Your task to perform on an android device: Open calendar and show me the second week of next month Image 0: 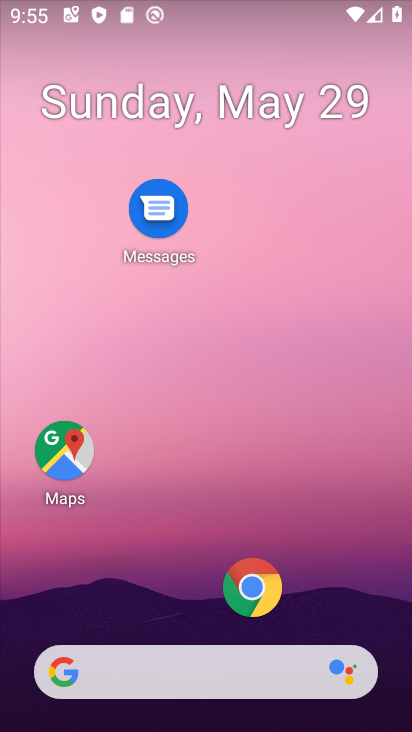
Step 0: drag from (131, 570) to (243, 19)
Your task to perform on an android device: Open calendar and show me the second week of next month Image 1: 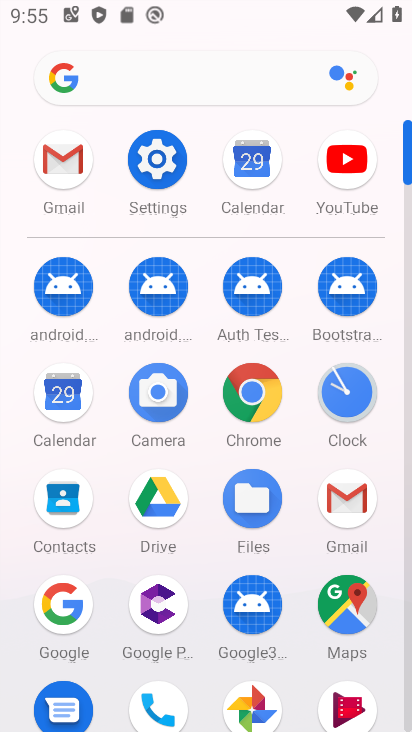
Step 1: click (260, 163)
Your task to perform on an android device: Open calendar and show me the second week of next month Image 2: 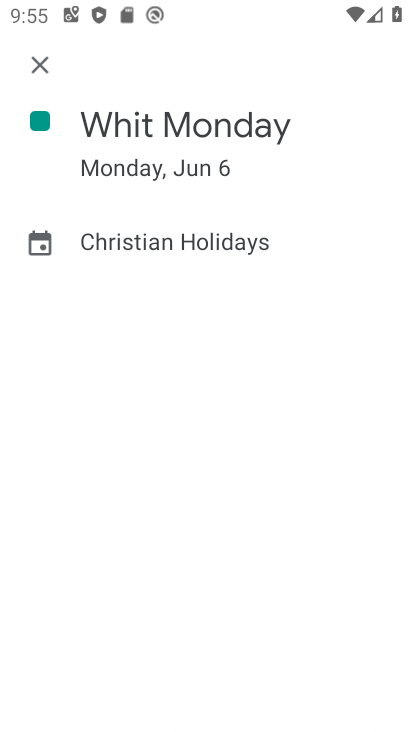
Step 2: press home button
Your task to perform on an android device: Open calendar and show me the second week of next month Image 3: 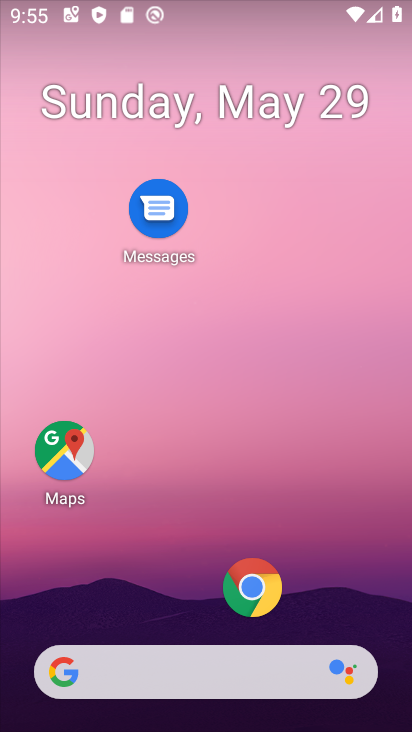
Step 3: drag from (175, 481) to (208, 110)
Your task to perform on an android device: Open calendar and show me the second week of next month Image 4: 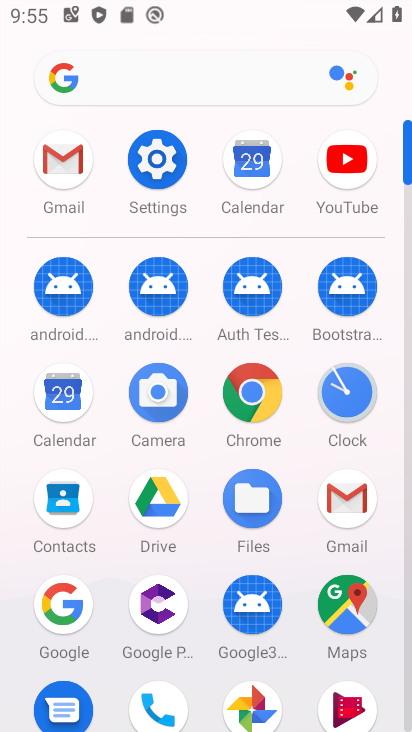
Step 4: click (56, 400)
Your task to perform on an android device: Open calendar and show me the second week of next month Image 5: 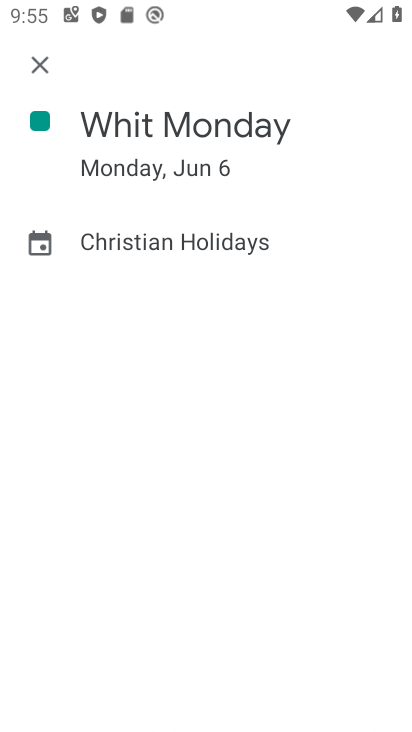
Step 5: click (43, 49)
Your task to perform on an android device: Open calendar and show me the second week of next month Image 6: 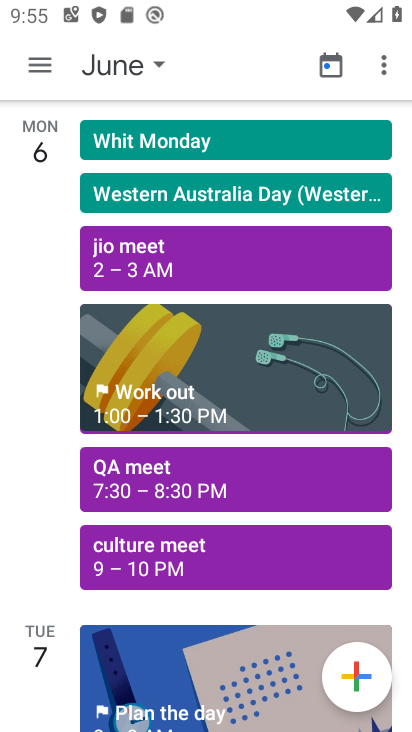
Step 6: click (137, 69)
Your task to perform on an android device: Open calendar and show me the second week of next month Image 7: 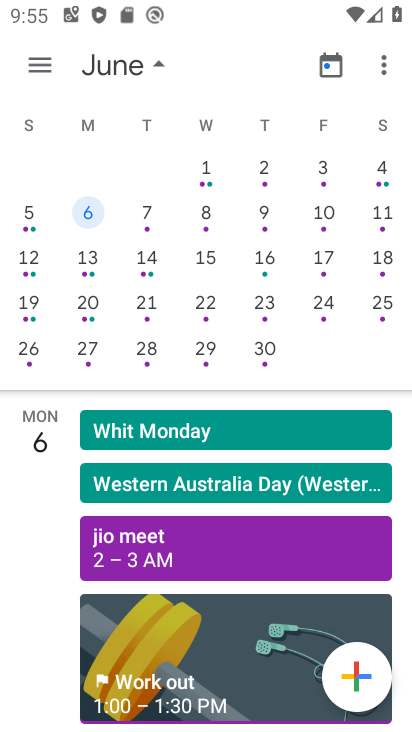
Step 7: click (91, 209)
Your task to perform on an android device: Open calendar and show me the second week of next month Image 8: 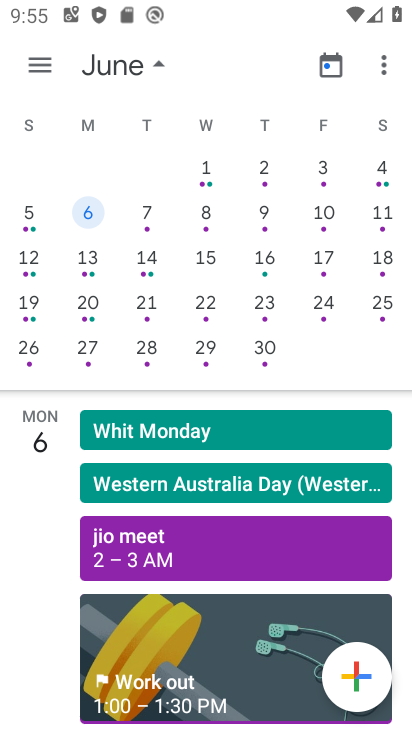
Step 8: task complete